Your task to perform on an android device: Open Amazon Image 0: 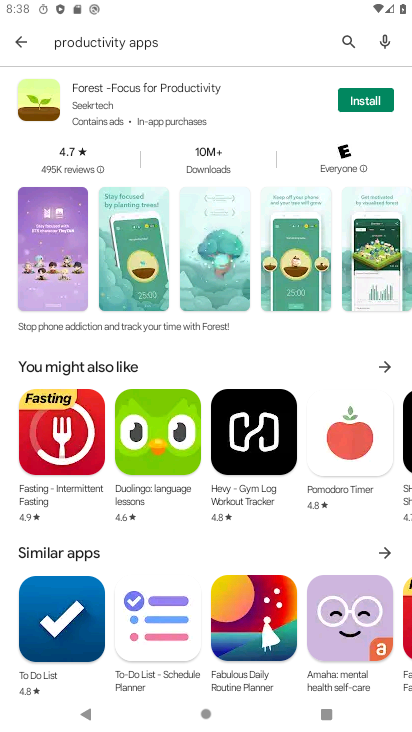
Step 0: press back button
Your task to perform on an android device: Open Amazon Image 1: 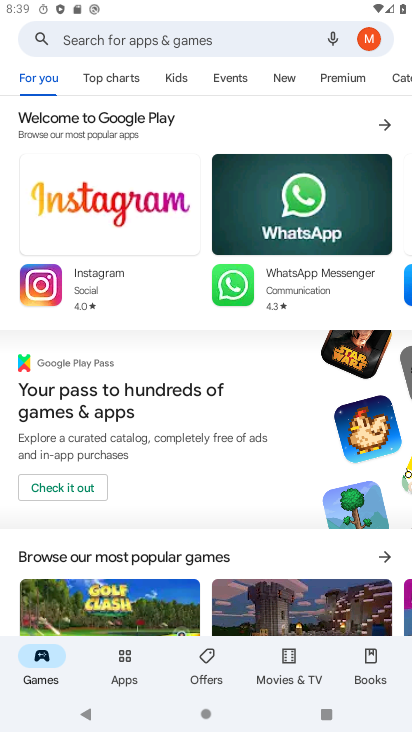
Step 1: press back button
Your task to perform on an android device: Open Amazon Image 2: 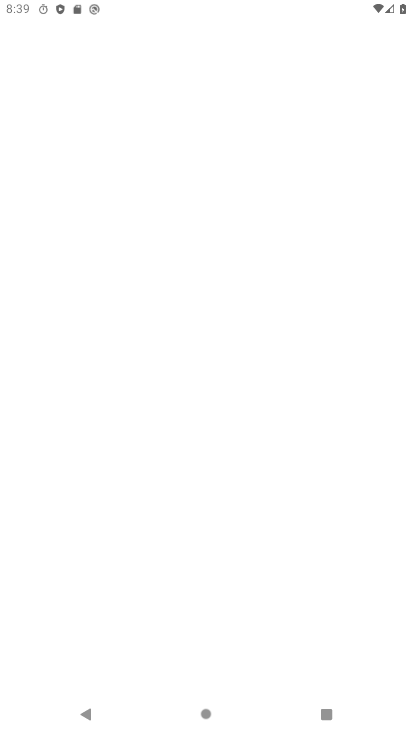
Step 2: press back button
Your task to perform on an android device: Open Amazon Image 3: 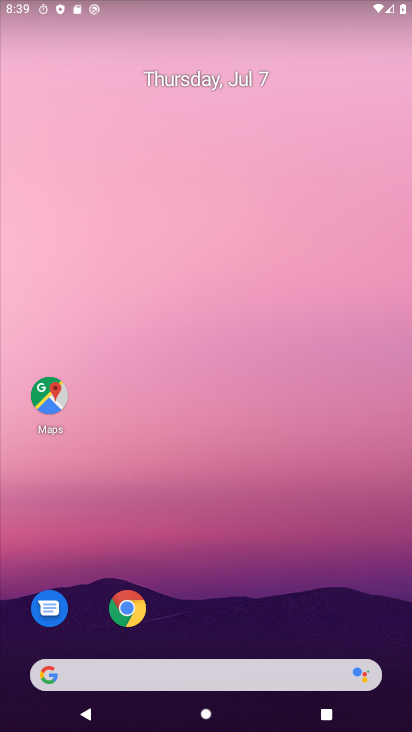
Step 3: drag from (232, 637) to (174, 115)
Your task to perform on an android device: Open Amazon Image 4: 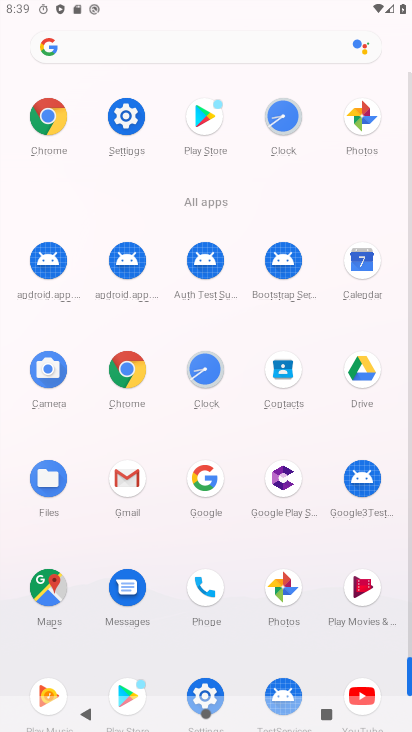
Step 4: click (130, 373)
Your task to perform on an android device: Open Amazon Image 5: 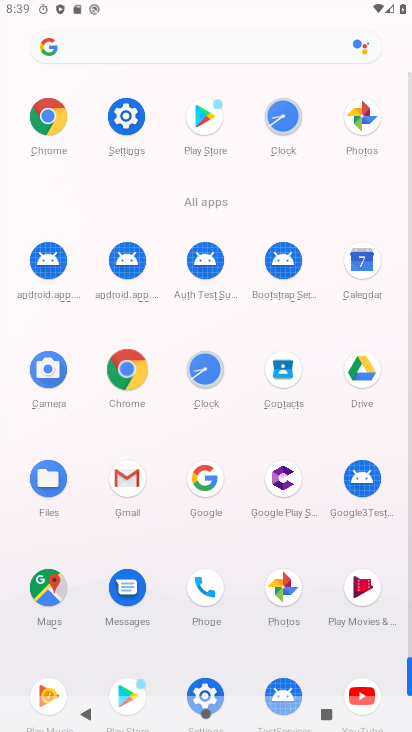
Step 5: click (130, 373)
Your task to perform on an android device: Open Amazon Image 6: 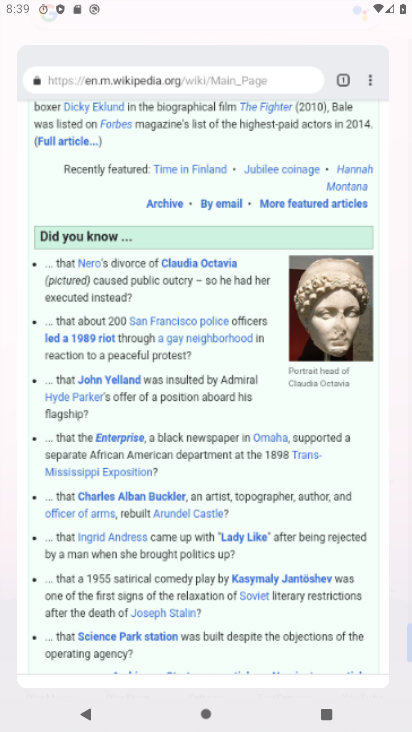
Step 6: click (130, 369)
Your task to perform on an android device: Open Amazon Image 7: 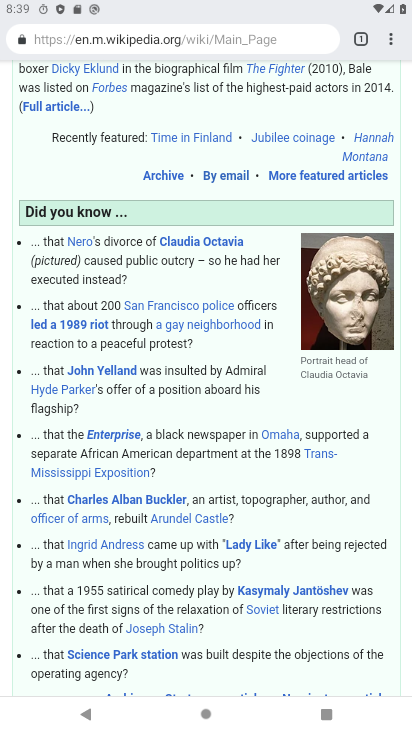
Step 7: drag from (391, 40) to (248, 122)
Your task to perform on an android device: Open Amazon Image 8: 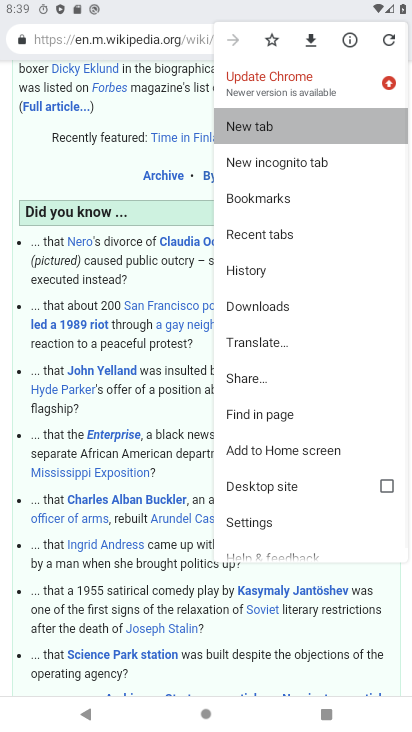
Step 8: click (244, 126)
Your task to perform on an android device: Open Amazon Image 9: 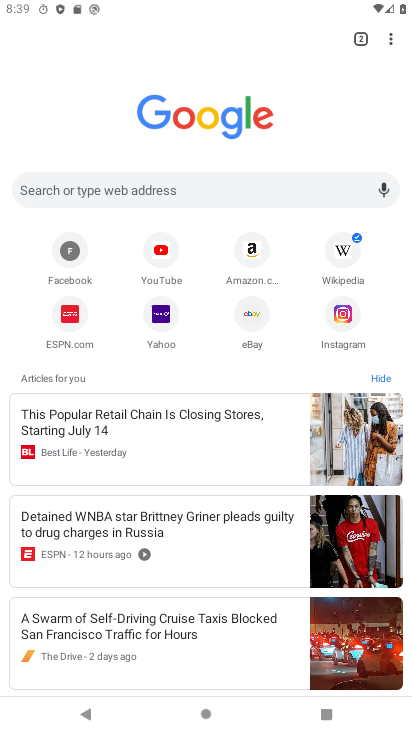
Step 9: click (256, 254)
Your task to perform on an android device: Open Amazon Image 10: 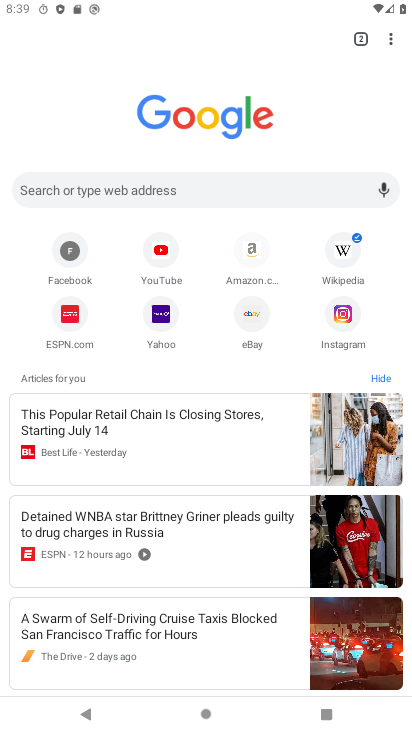
Step 10: click (255, 252)
Your task to perform on an android device: Open Amazon Image 11: 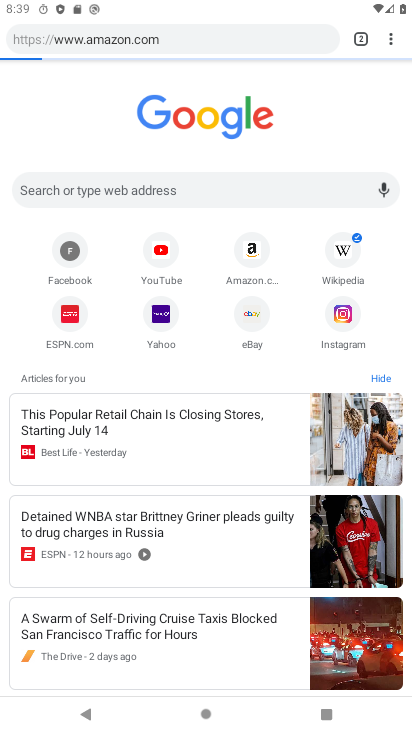
Step 11: click (255, 252)
Your task to perform on an android device: Open Amazon Image 12: 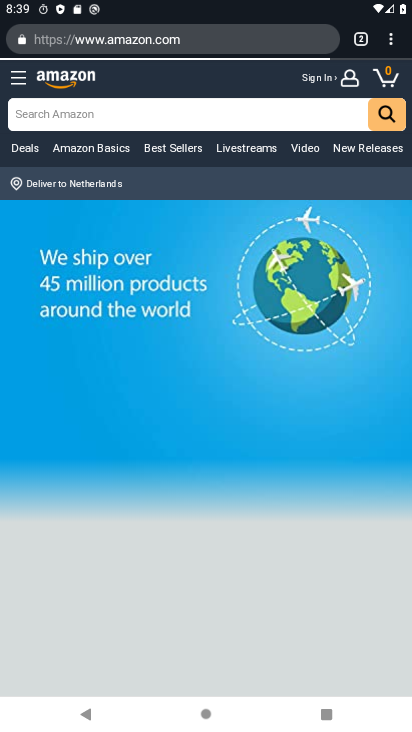
Step 12: task complete